Your task to perform on an android device: move a message to another label in the gmail app Image 0: 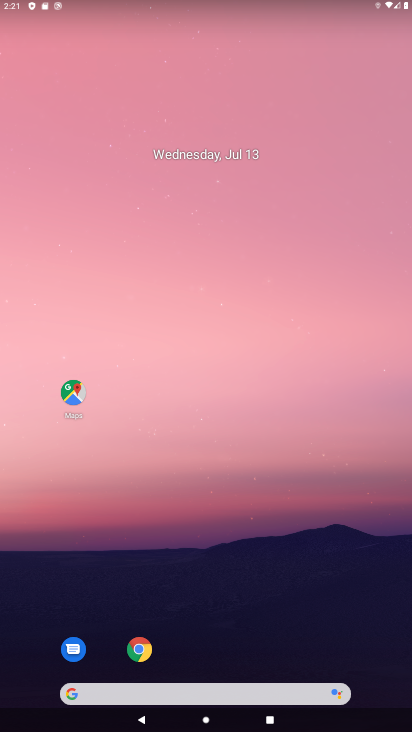
Step 0: drag from (213, 573) to (213, 141)
Your task to perform on an android device: move a message to another label in the gmail app Image 1: 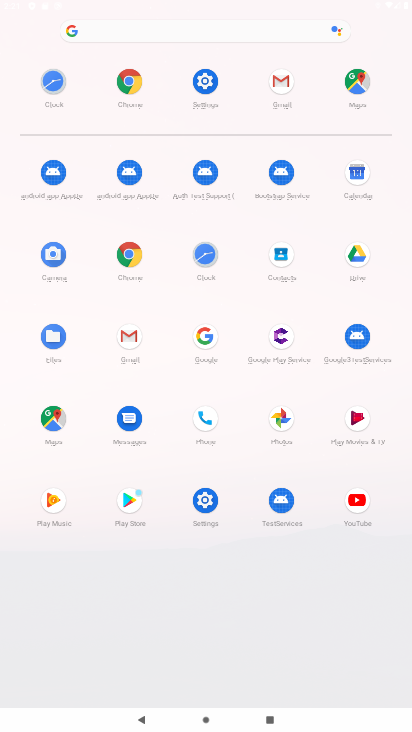
Step 1: click (123, 330)
Your task to perform on an android device: move a message to another label in the gmail app Image 2: 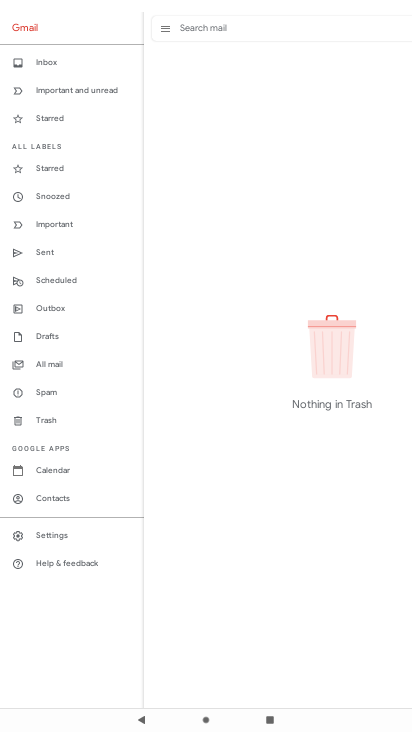
Step 2: click (52, 532)
Your task to perform on an android device: move a message to another label in the gmail app Image 3: 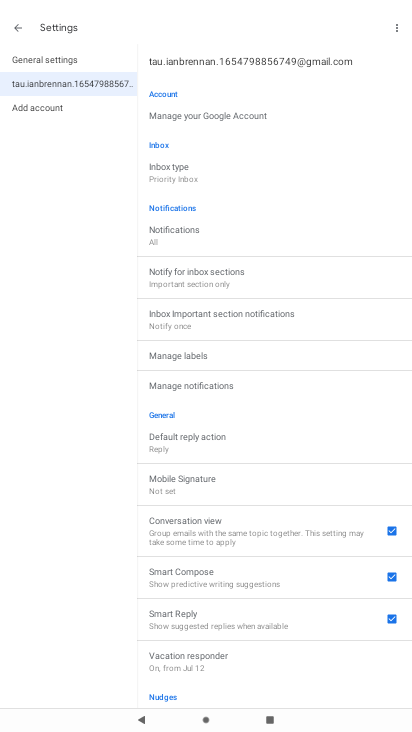
Step 3: click (12, 16)
Your task to perform on an android device: move a message to another label in the gmail app Image 4: 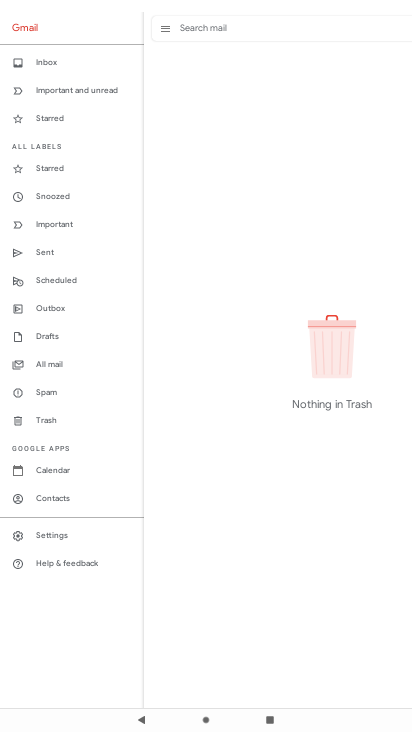
Step 4: click (36, 58)
Your task to perform on an android device: move a message to another label in the gmail app Image 5: 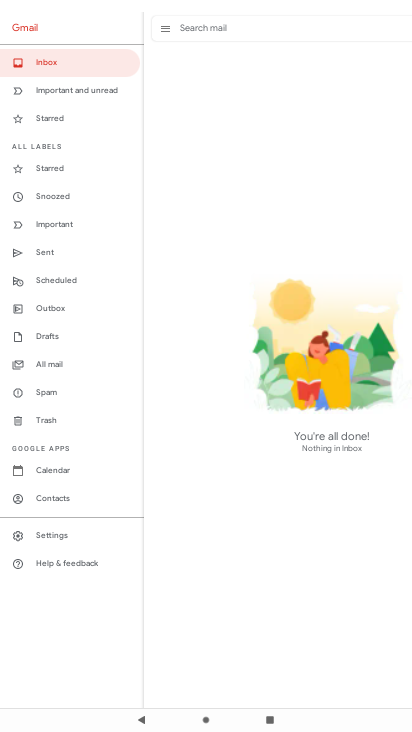
Step 5: task complete